Your task to perform on an android device: change the clock display to show seconds Image 0: 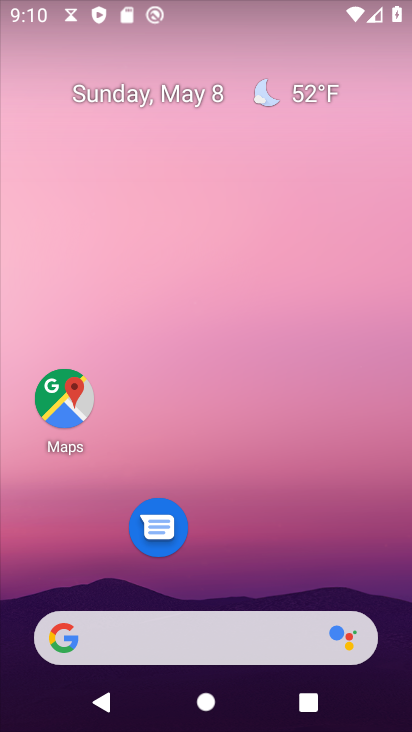
Step 0: drag from (269, 557) to (393, 4)
Your task to perform on an android device: change the clock display to show seconds Image 1: 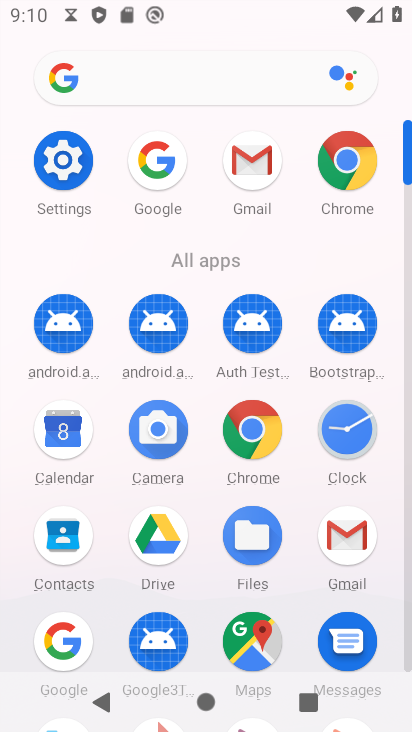
Step 1: click (350, 427)
Your task to perform on an android device: change the clock display to show seconds Image 2: 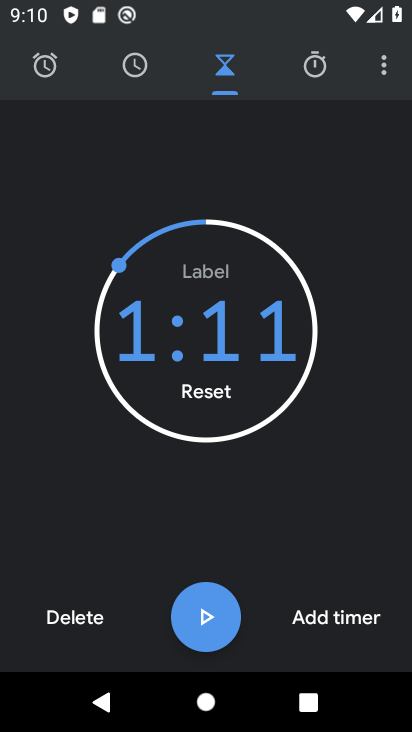
Step 2: click (384, 63)
Your task to perform on an android device: change the clock display to show seconds Image 3: 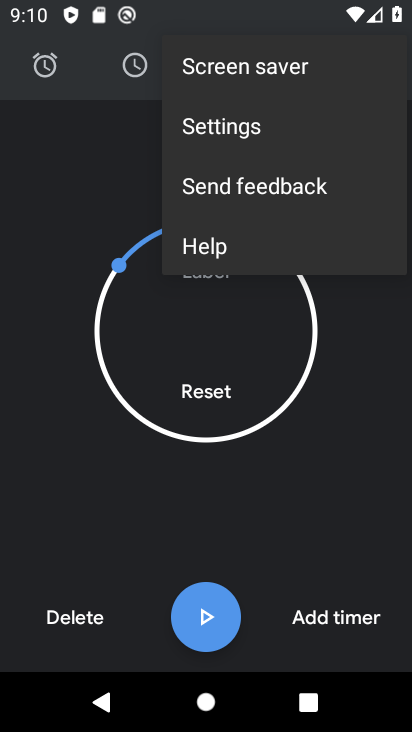
Step 3: click (228, 133)
Your task to perform on an android device: change the clock display to show seconds Image 4: 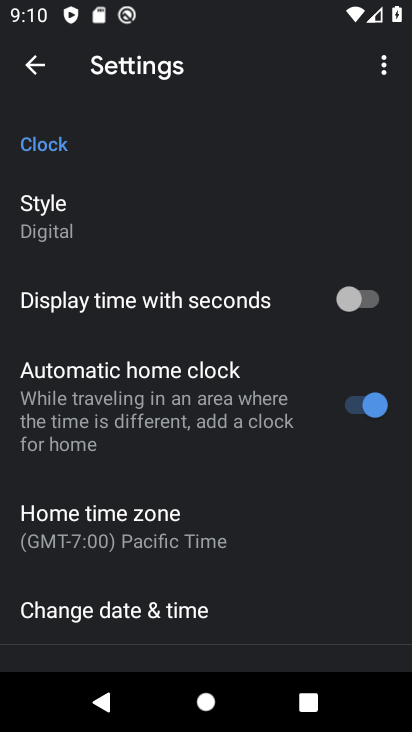
Step 4: click (345, 303)
Your task to perform on an android device: change the clock display to show seconds Image 5: 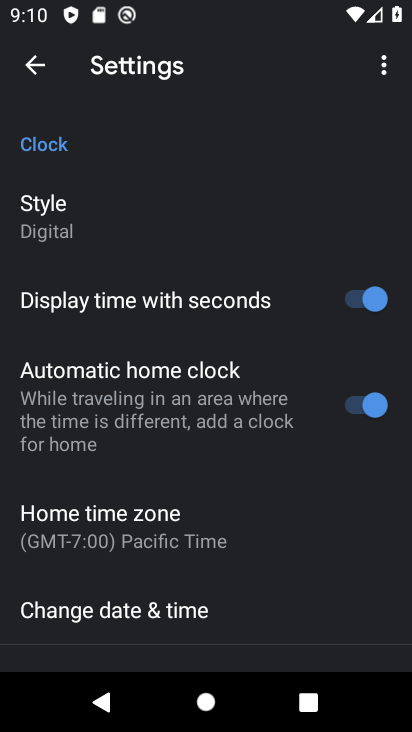
Step 5: task complete